Your task to perform on an android device: When is my next appointment? Image 0: 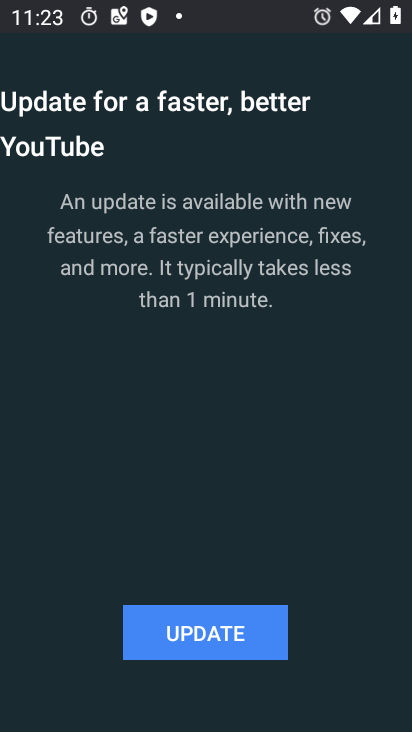
Step 0: press home button
Your task to perform on an android device: When is my next appointment? Image 1: 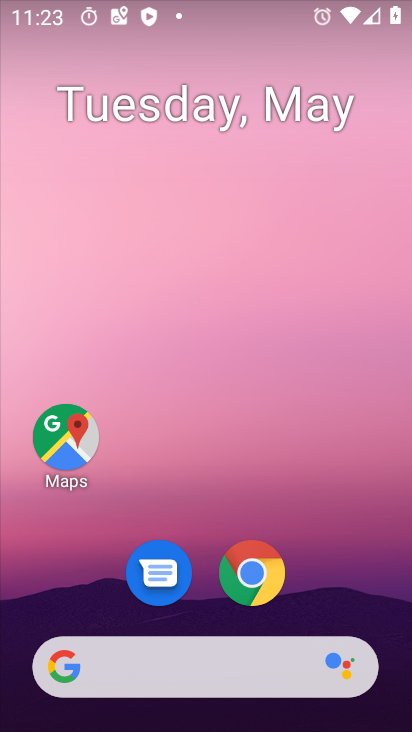
Step 1: drag from (293, 718) to (205, 410)
Your task to perform on an android device: When is my next appointment? Image 2: 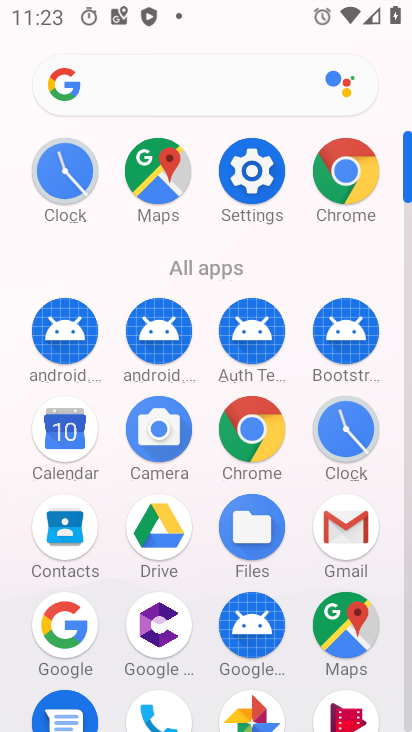
Step 2: click (64, 459)
Your task to perform on an android device: When is my next appointment? Image 3: 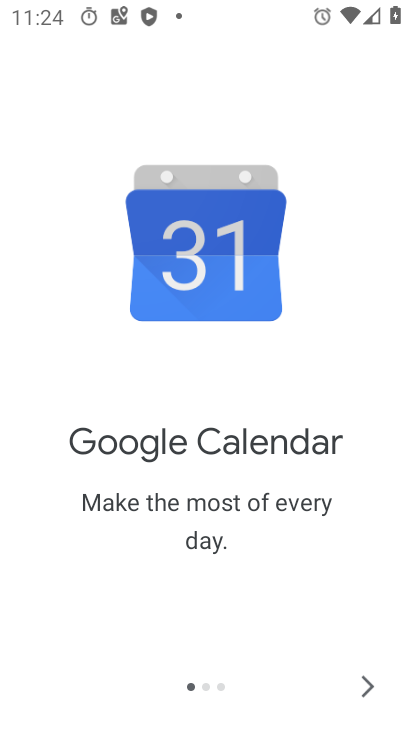
Step 3: click (380, 669)
Your task to perform on an android device: When is my next appointment? Image 4: 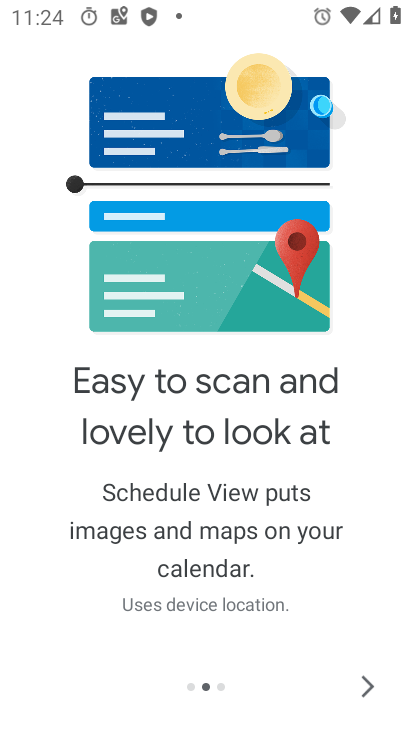
Step 4: click (366, 709)
Your task to perform on an android device: When is my next appointment? Image 5: 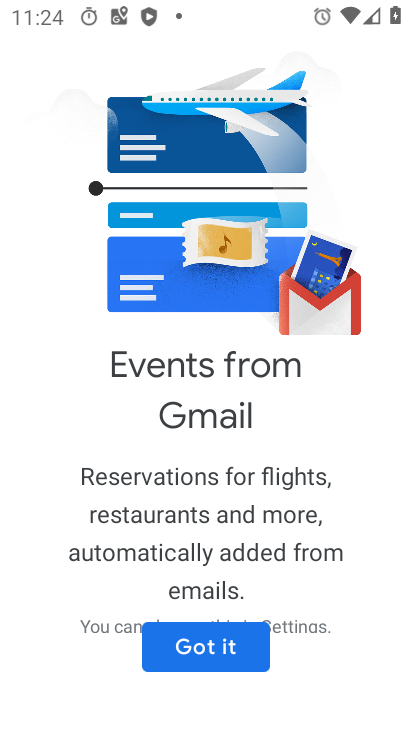
Step 5: click (222, 656)
Your task to perform on an android device: When is my next appointment? Image 6: 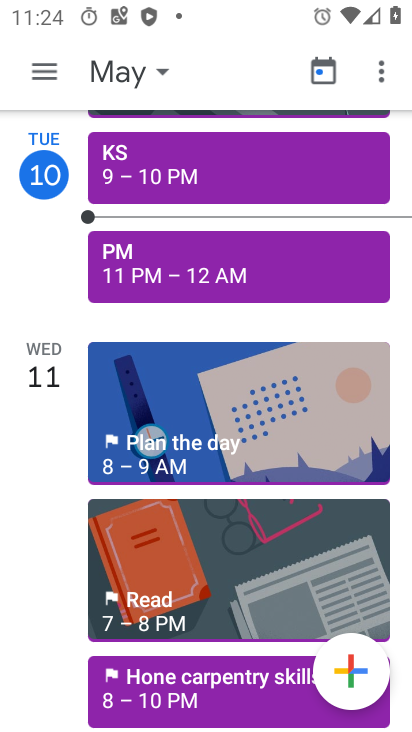
Step 6: task complete